Your task to perform on an android device: set the stopwatch Image 0: 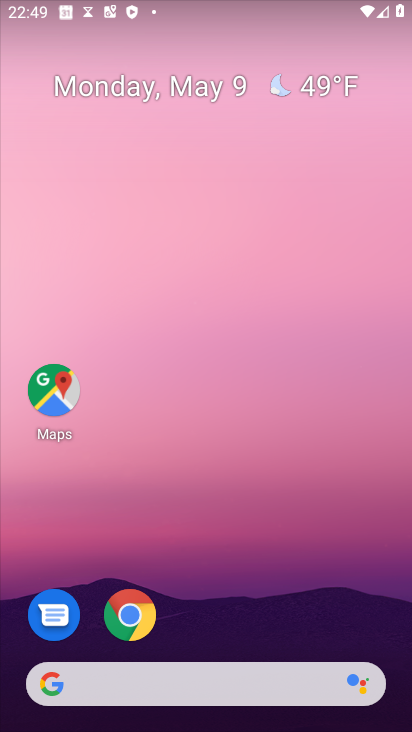
Step 0: drag from (235, 604) to (245, 146)
Your task to perform on an android device: set the stopwatch Image 1: 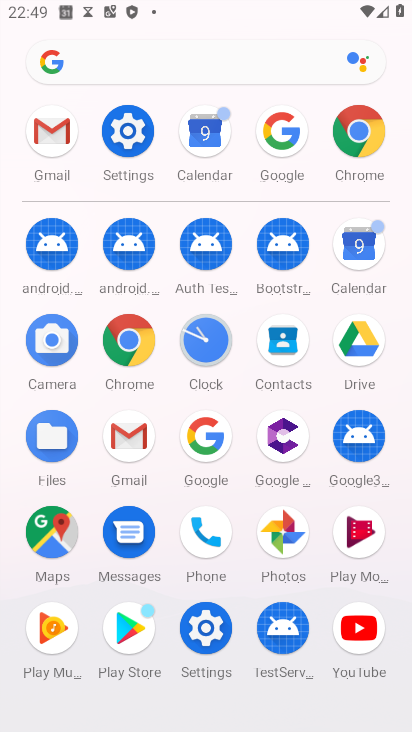
Step 1: click (200, 356)
Your task to perform on an android device: set the stopwatch Image 2: 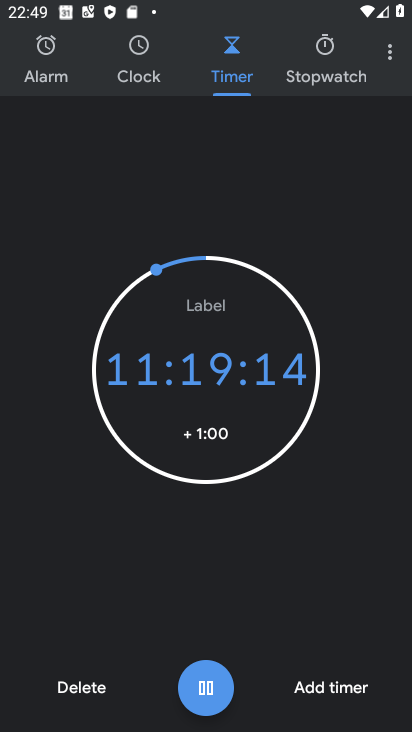
Step 2: click (333, 61)
Your task to perform on an android device: set the stopwatch Image 3: 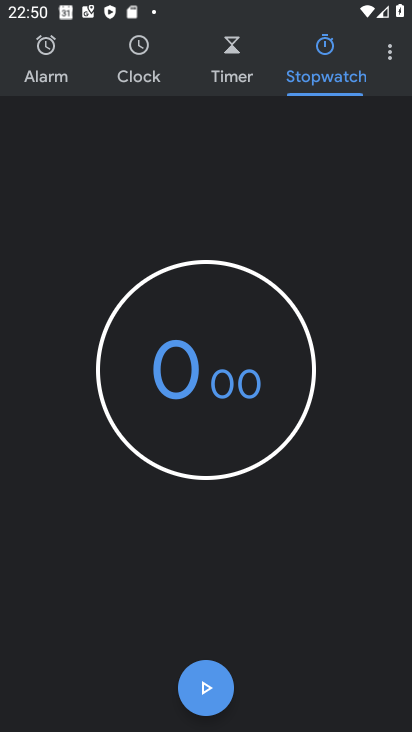
Step 3: task complete